Your task to perform on an android device: Search for the best selling phone on AliExpress Image 0: 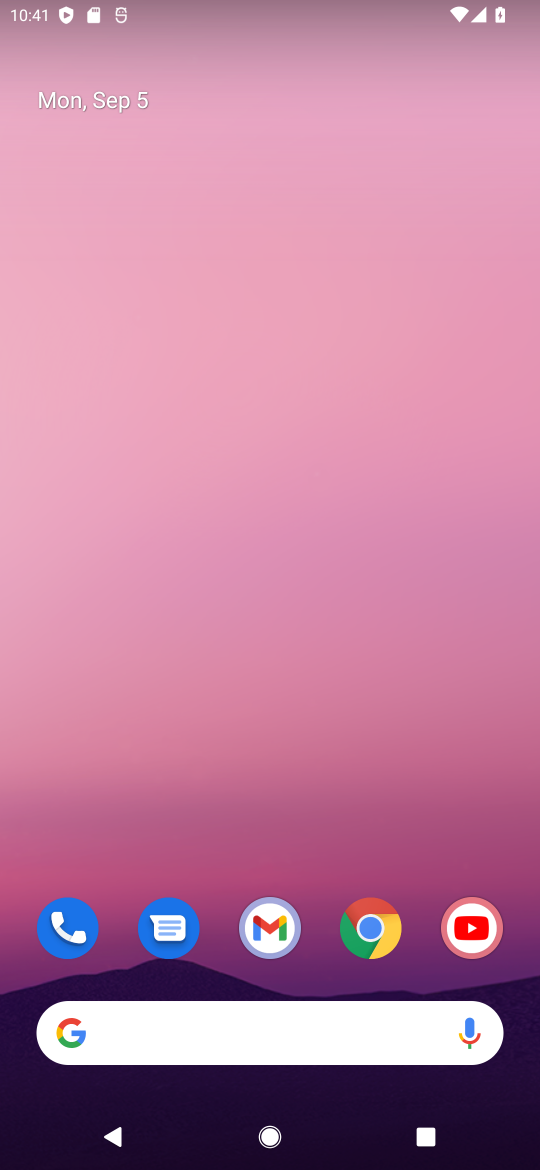
Step 0: drag from (316, 925) to (323, 41)
Your task to perform on an android device: Search for the best selling phone on AliExpress Image 1: 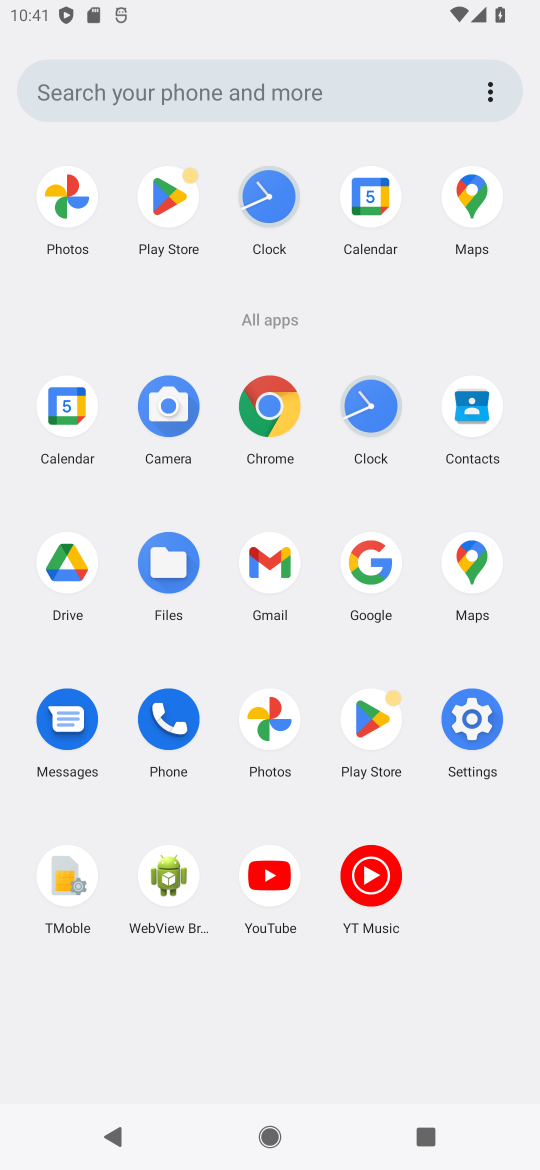
Step 1: click (271, 405)
Your task to perform on an android device: Search for the best selling phone on AliExpress Image 2: 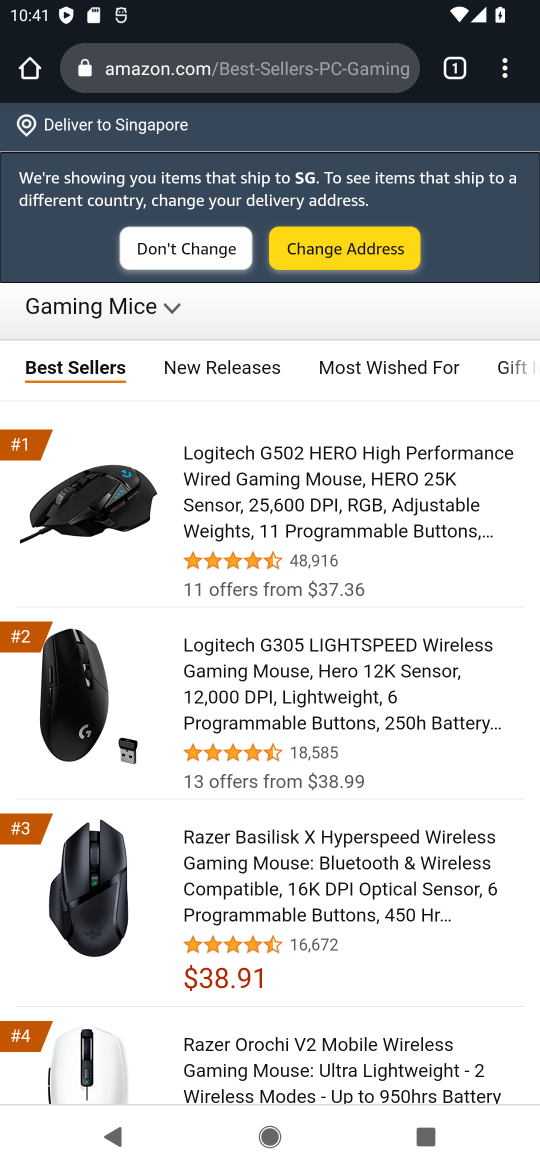
Step 2: click (332, 58)
Your task to perform on an android device: Search for the best selling phone on AliExpress Image 3: 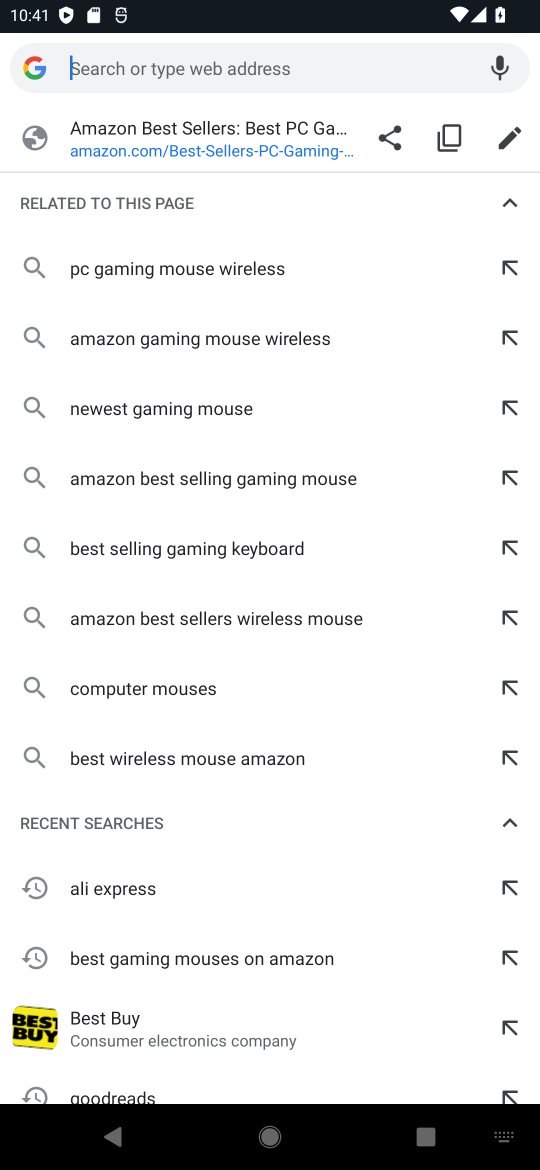
Step 3: type "best selling phone on AliExress"
Your task to perform on an android device: Search for the best selling phone on AliExpress Image 4: 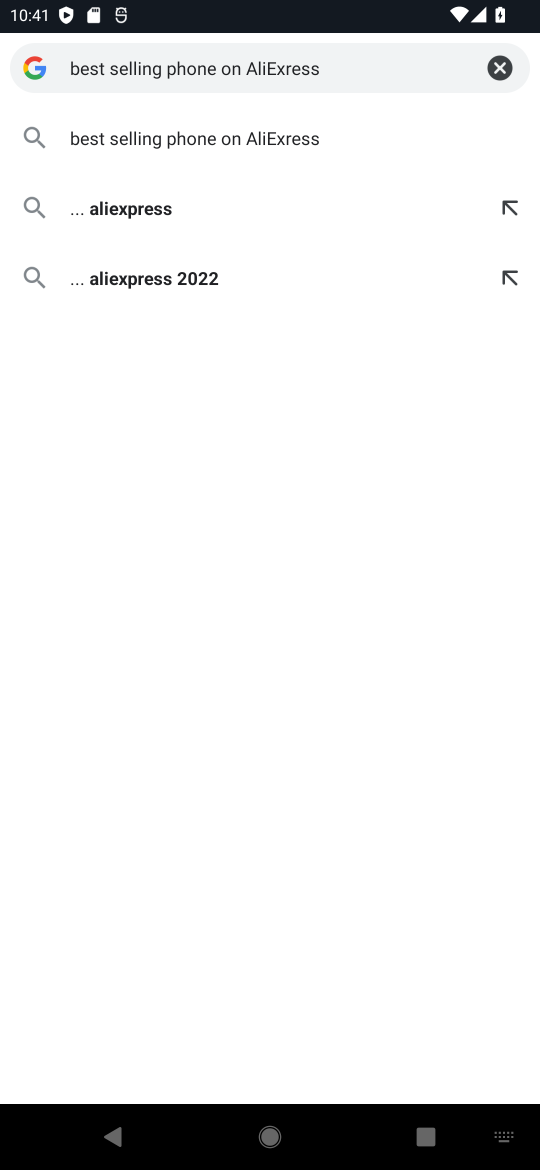
Step 4: press enter
Your task to perform on an android device: Search for the best selling phone on AliExpress Image 5: 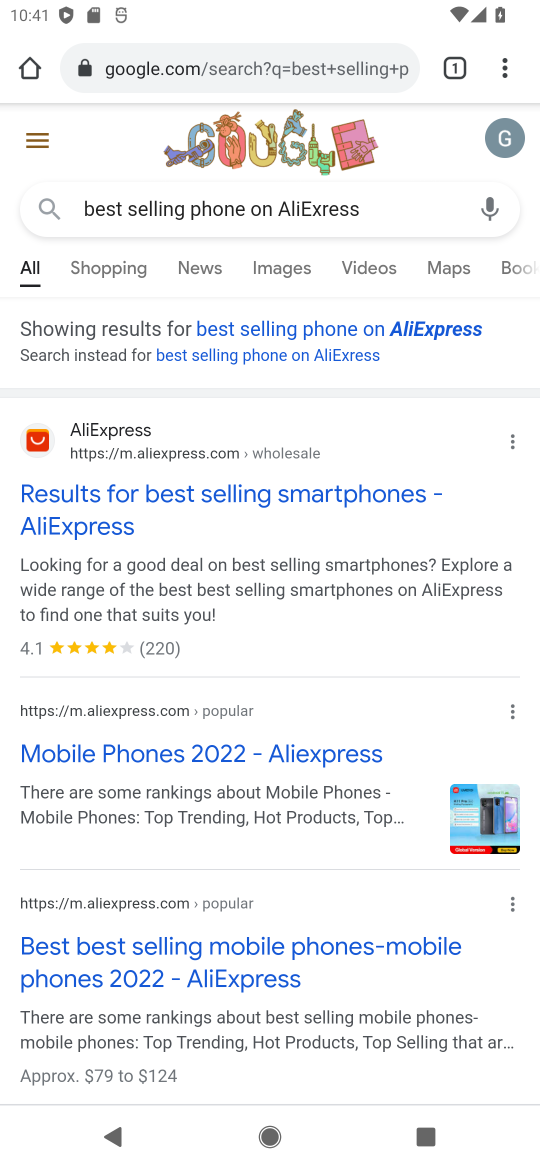
Step 5: click (307, 487)
Your task to perform on an android device: Search for the best selling phone on AliExpress Image 6: 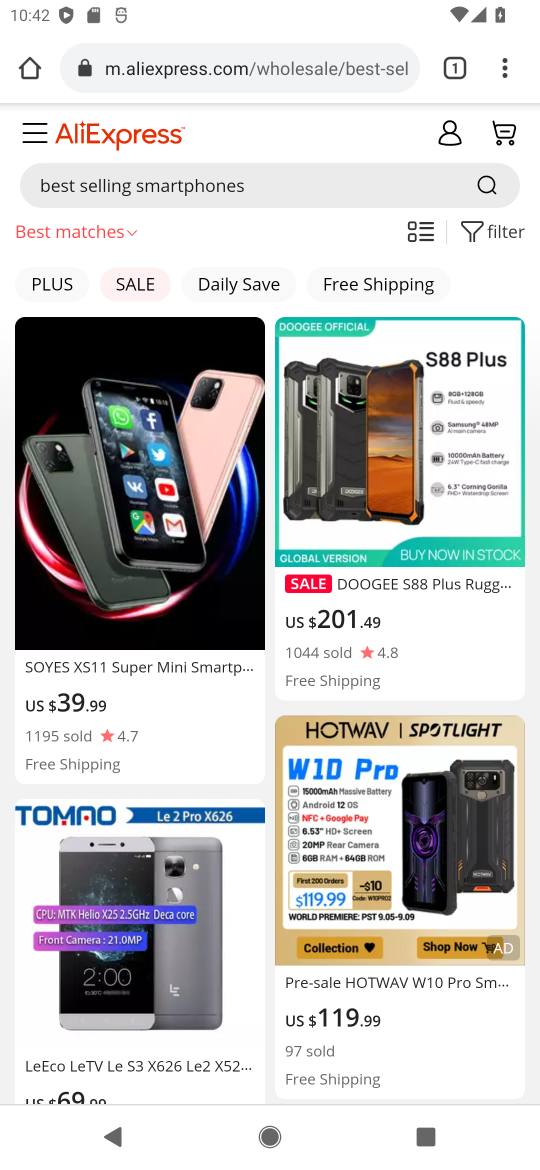
Step 6: task complete